Your task to perform on an android device: Go to settings Image 0: 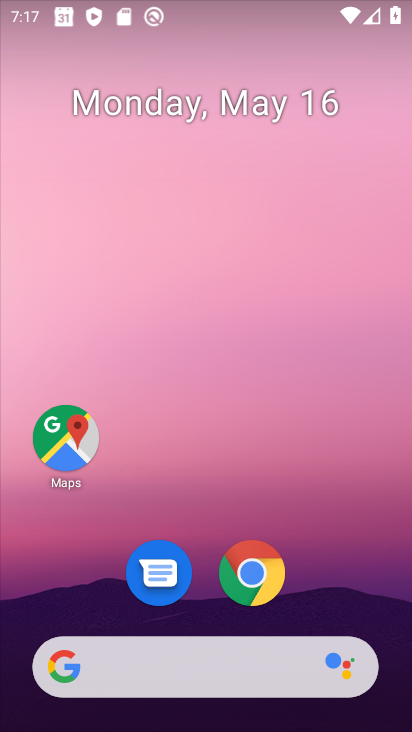
Step 0: drag from (344, 536) to (286, 7)
Your task to perform on an android device: Go to settings Image 1: 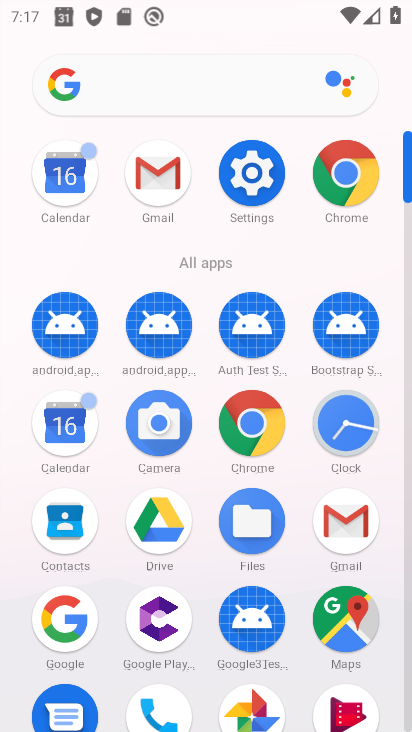
Step 1: click (269, 200)
Your task to perform on an android device: Go to settings Image 2: 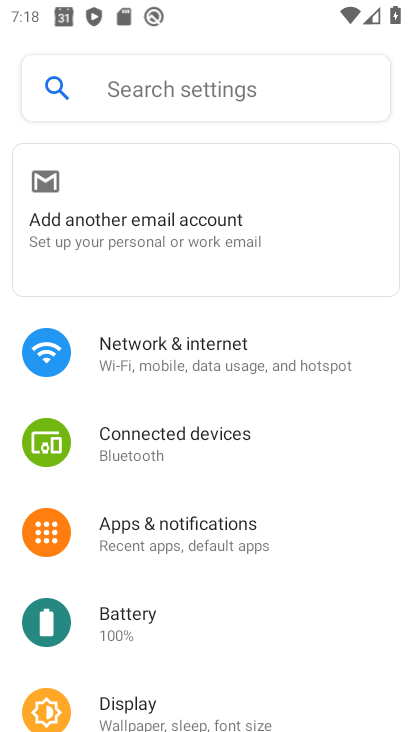
Step 2: task complete